Your task to perform on an android device: What's on my calendar tomorrow? Image 0: 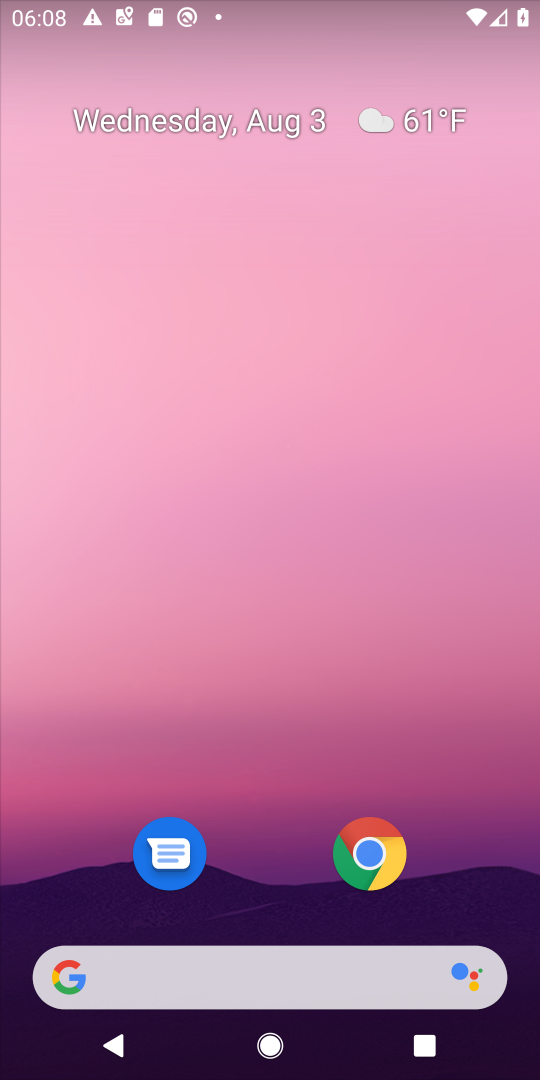
Step 0: drag from (267, 796) to (276, 318)
Your task to perform on an android device: What's on my calendar tomorrow? Image 1: 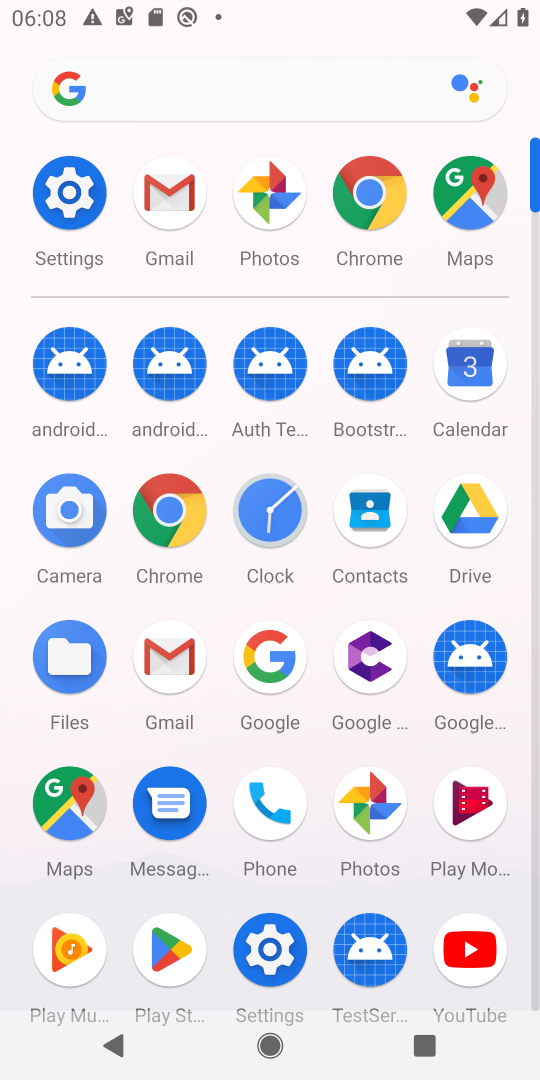
Step 1: click (467, 361)
Your task to perform on an android device: What's on my calendar tomorrow? Image 2: 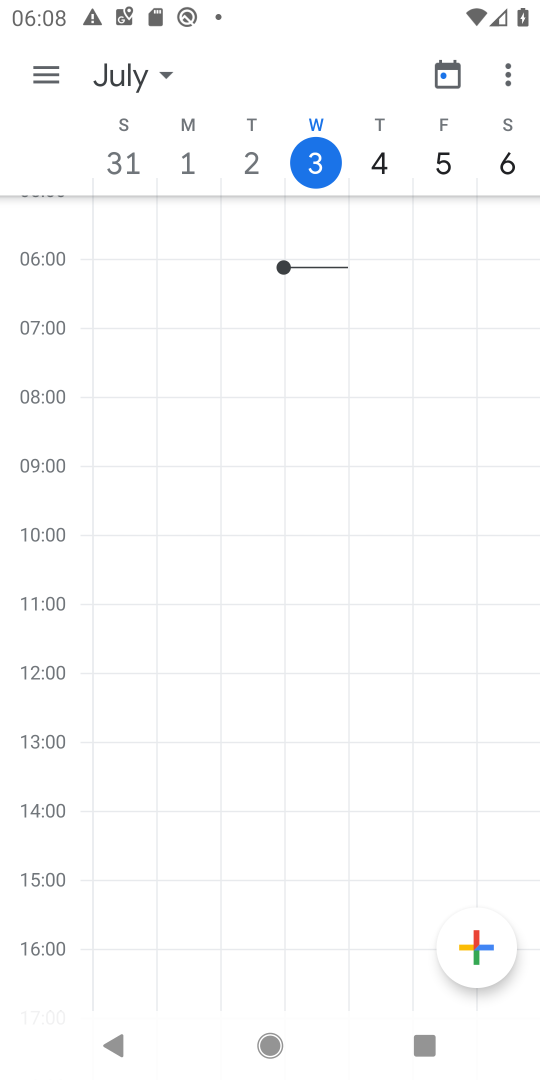
Step 2: click (380, 162)
Your task to perform on an android device: What's on my calendar tomorrow? Image 3: 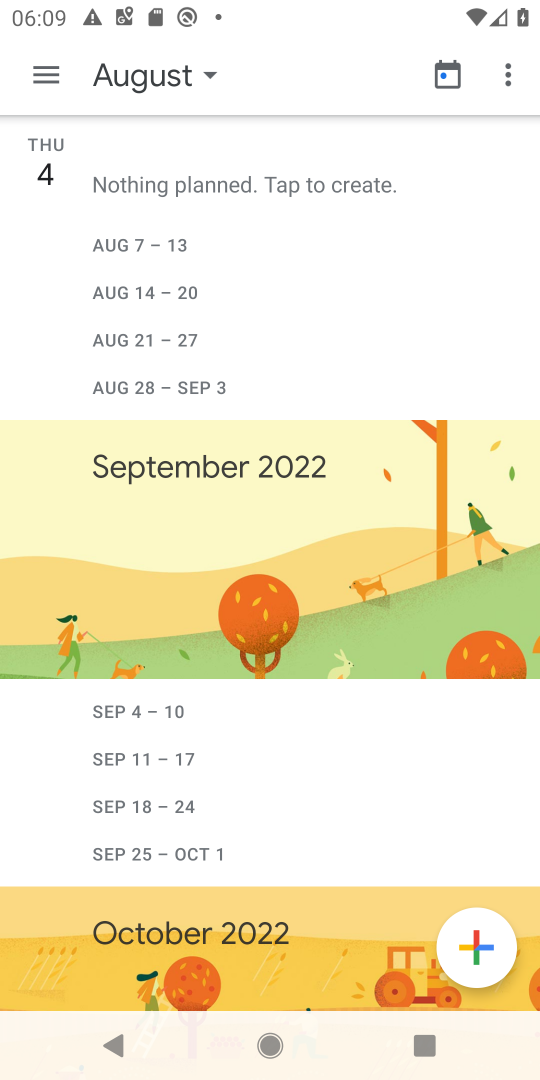
Step 3: task complete